Your task to perform on an android device: visit the assistant section in the google photos Image 0: 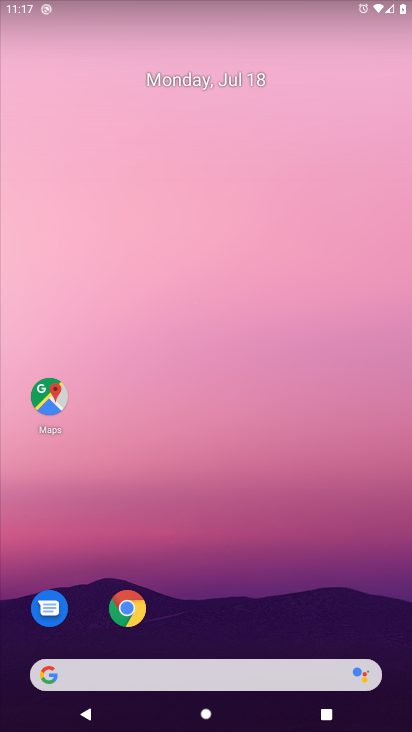
Step 0: drag from (44, 683) to (239, 233)
Your task to perform on an android device: visit the assistant section in the google photos Image 1: 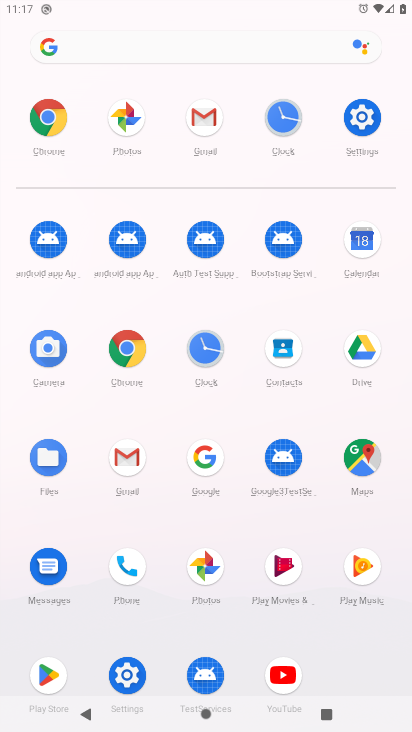
Step 1: click (200, 539)
Your task to perform on an android device: visit the assistant section in the google photos Image 2: 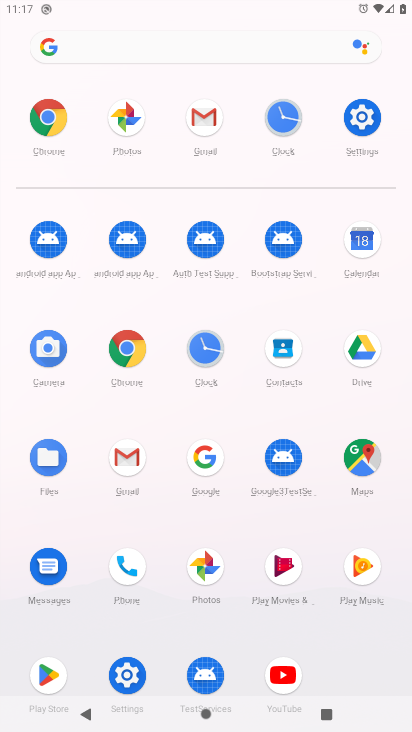
Step 2: click (215, 572)
Your task to perform on an android device: visit the assistant section in the google photos Image 3: 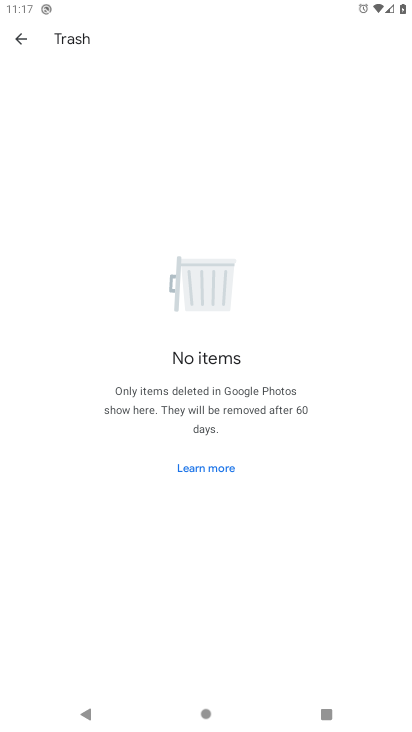
Step 3: click (22, 33)
Your task to perform on an android device: visit the assistant section in the google photos Image 4: 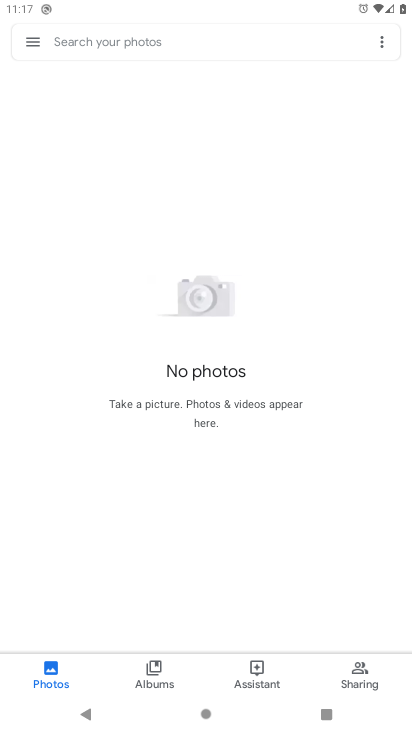
Step 4: click (247, 684)
Your task to perform on an android device: visit the assistant section in the google photos Image 5: 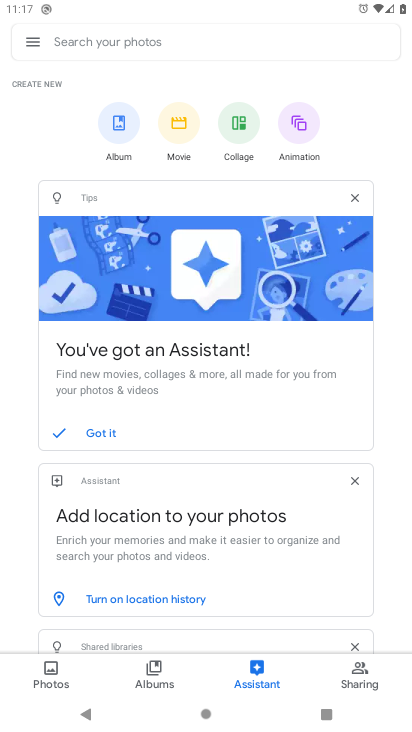
Step 5: task complete